Your task to perform on an android device: Search for pizza restaurants on Maps Image 0: 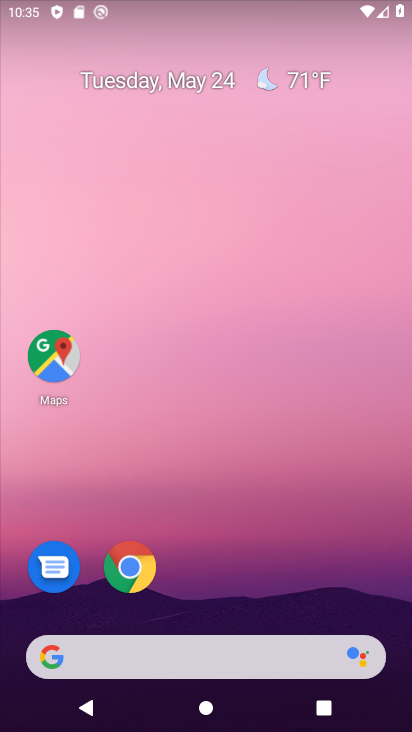
Step 0: click (33, 345)
Your task to perform on an android device: Search for pizza restaurants on Maps Image 1: 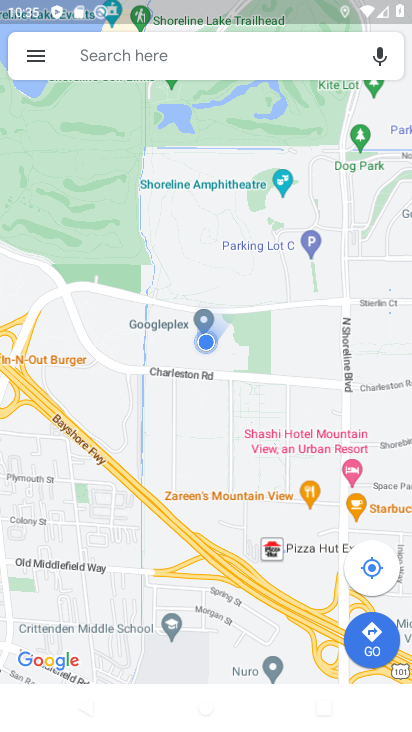
Step 1: click (98, 54)
Your task to perform on an android device: Search for pizza restaurants on Maps Image 2: 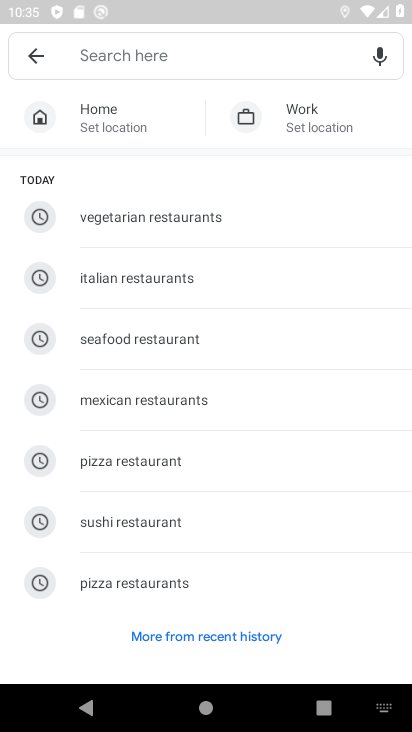
Step 2: type "pizza restaurants"
Your task to perform on an android device: Search for pizza restaurants on Maps Image 3: 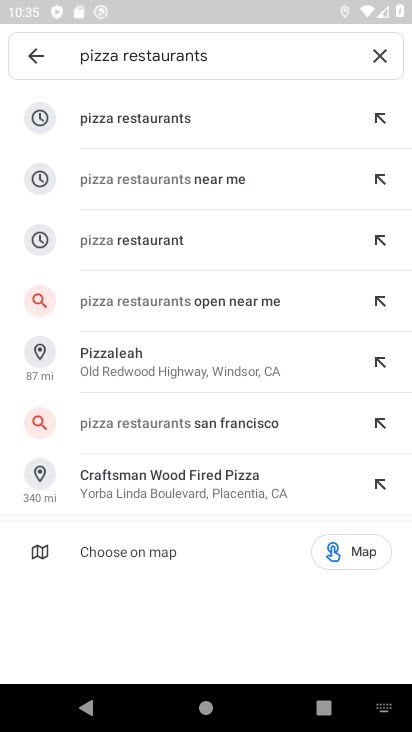
Step 3: click (144, 114)
Your task to perform on an android device: Search for pizza restaurants on Maps Image 4: 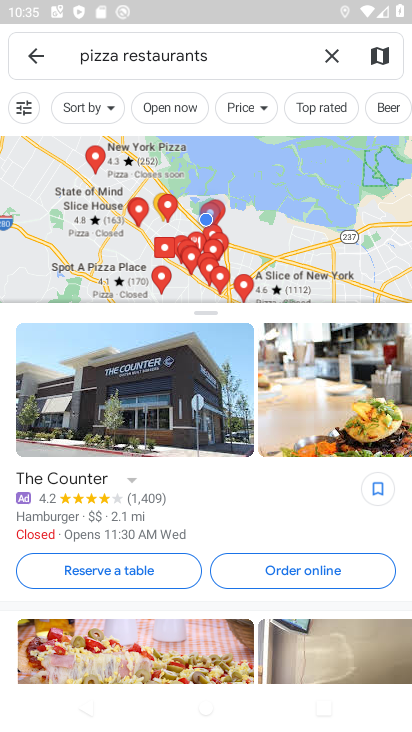
Step 4: task complete